Your task to perform on an android device: turn on data saver in the chrome app Image 0: 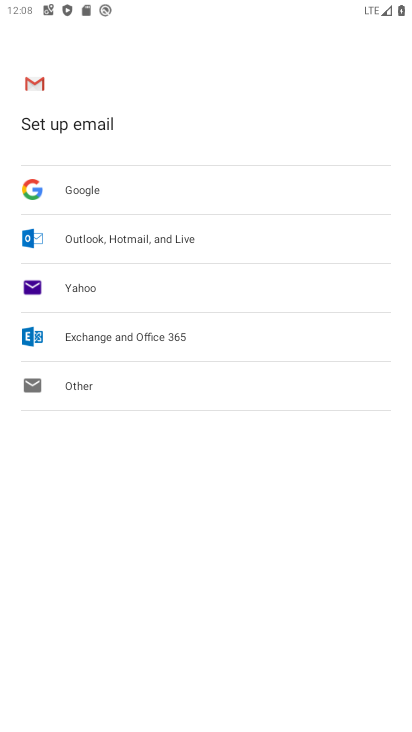
Step 0: press home button
Your task to perform on an android device: turn on data saver in the chrome app Image 1: 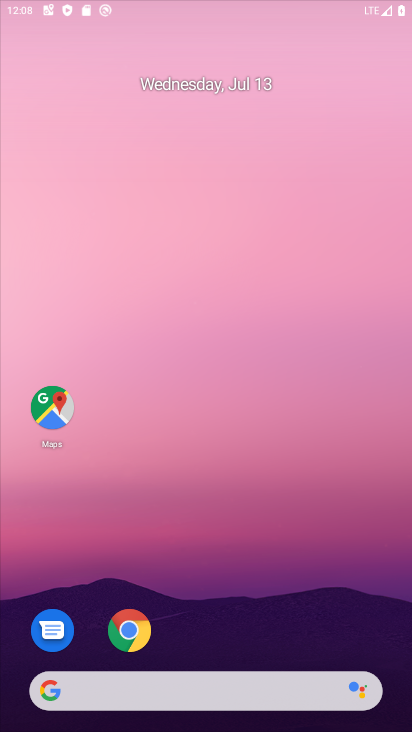
Step 1: drag from (402, 688) to (285, 0)
Your task to perform on an android device: turn on data saver in the chrome app Image 2: 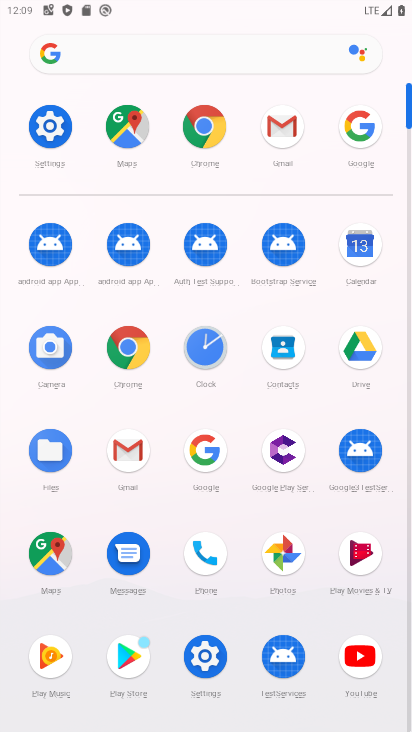
Step 2: click (141, 350)
Your task to perform on an android device: turn on data saver in the chrome app Image 3: 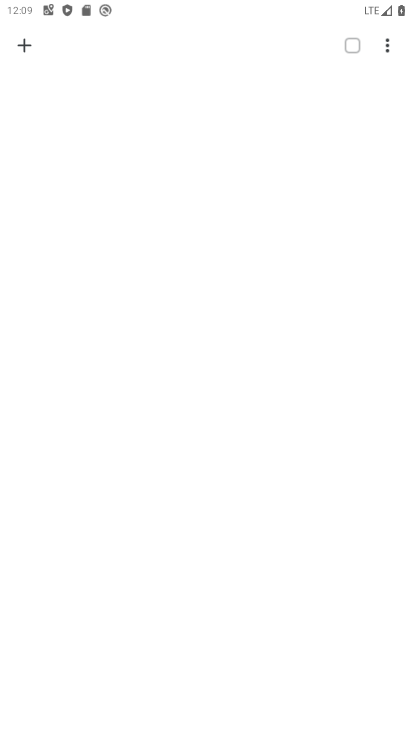
Step 3: click (388, 45)
Your task to perform on an android device: turn on data saver in the chrome app Image 4: 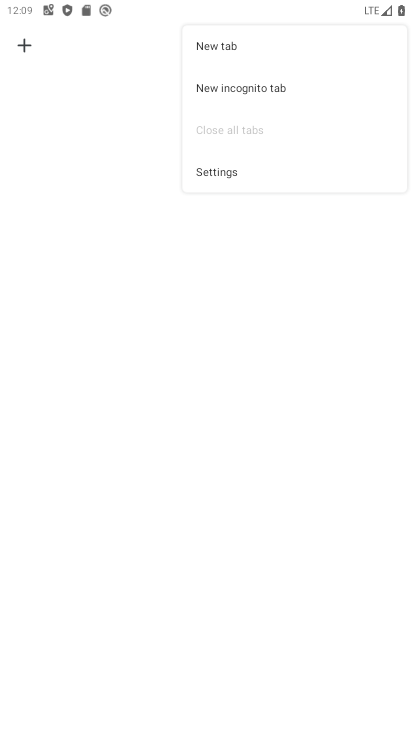
Step 4: click (231, 171)
Your task to perform on an android device: turn on data saver in the chrome app Image 5: 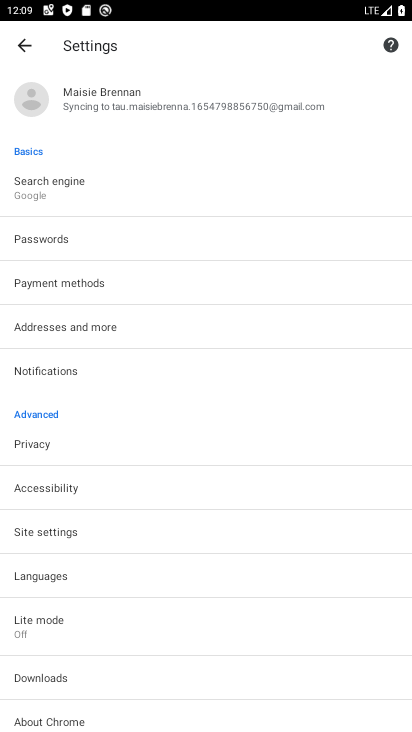
Step 5: click (79, 626)
Your task to perform on an android device: turn on data saver in the chrome app Image 6: 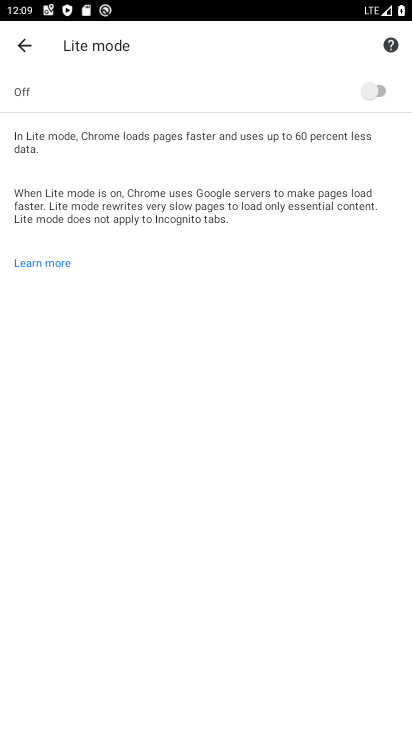
Step 6: click (369, 92)
Your task to perform on an android device: turn on data saver in the chrome app Image 7: 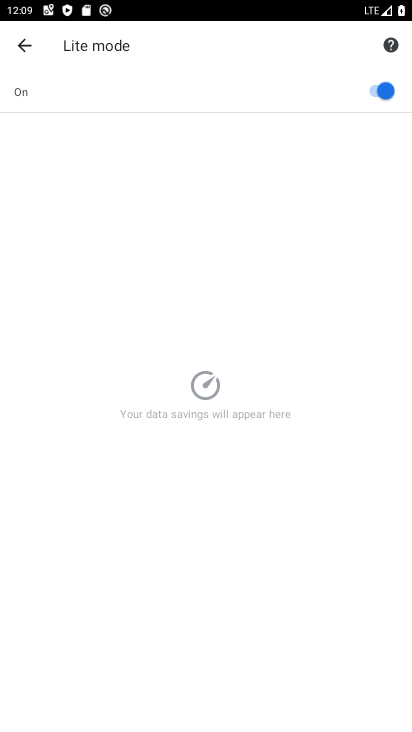
Step 7: task complete